Your task to perform on an android device: open wifi settings Image 0: 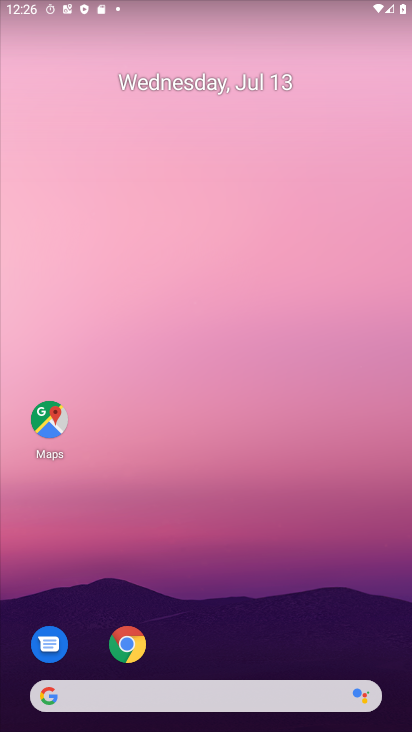
Step 0: drag from (247, 649) to (298, 119)
Your task to perform on an android device: open wifi settings Image 1: 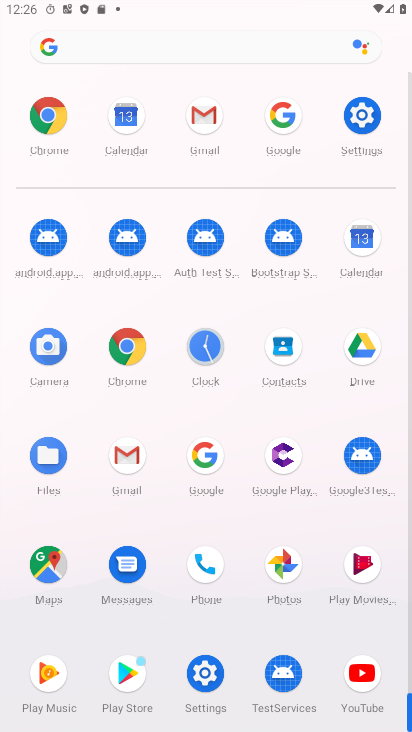
Step 1: click (365, 113)
Your task to perform on an android device: open wifi settings Image 2: 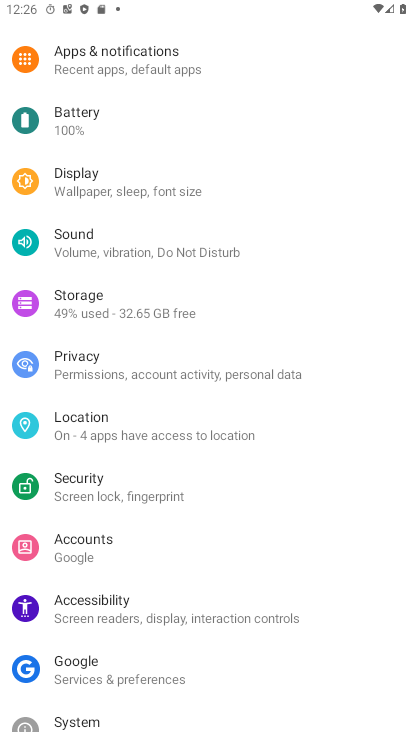
Step 2: drag from (86, 110) to (182, 575)
Your task to perform on an android device: open wifi settings Image 3: 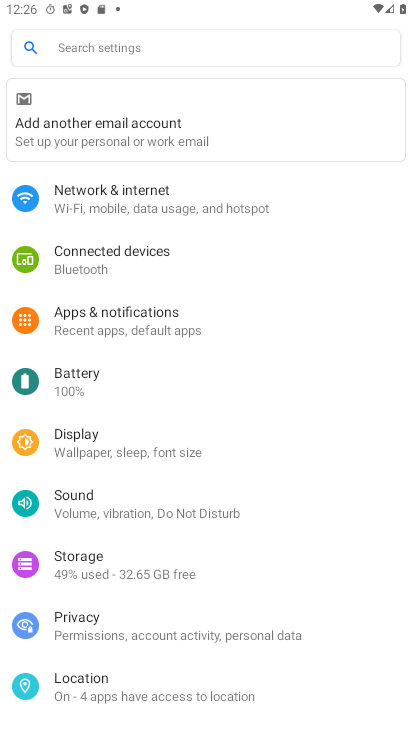
Step 3: click (117, 193)
Your task to perform on an android device: open wifi settings Image 4: 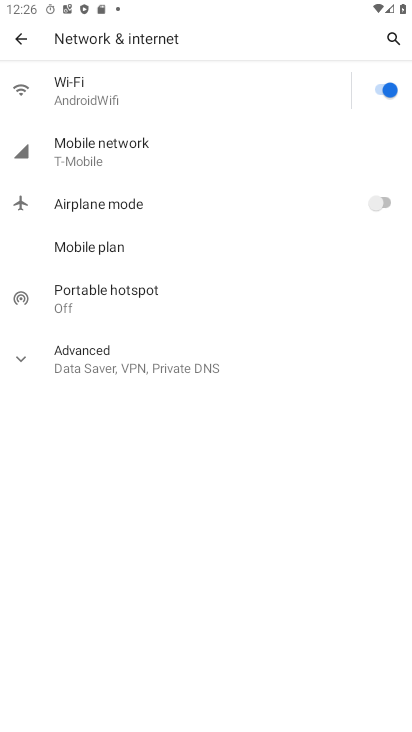
Step 4: click (151, 82)
Your task to perform on an android device: open wifi settings Image 5: 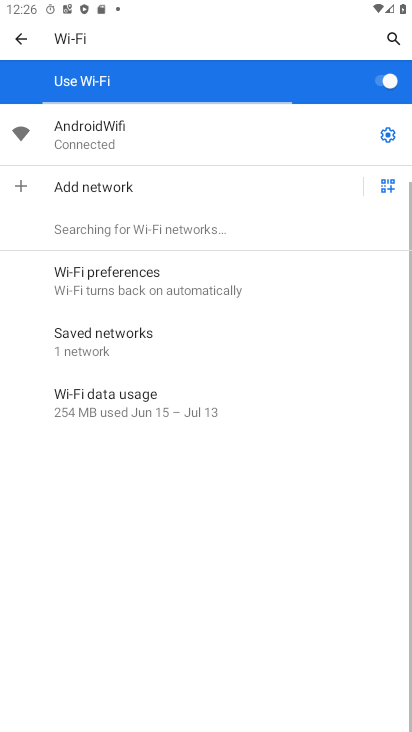
Step 5: click (313, 138)
Your task to perform on an android device: open wifi settings Image 6: 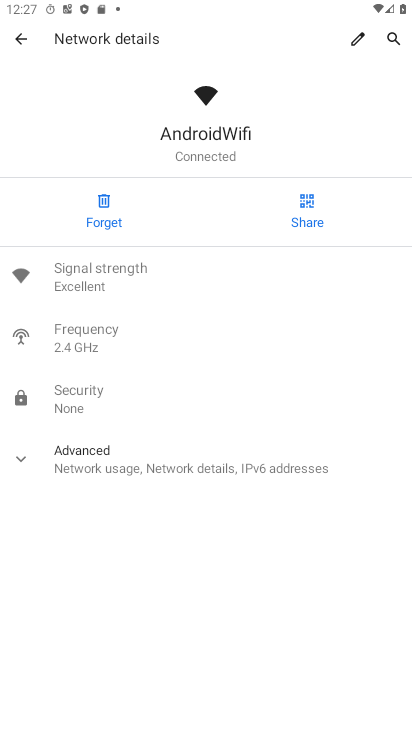
Step 6: task complete